Your task to perform on an android device: Open accessibility settings Image 0: 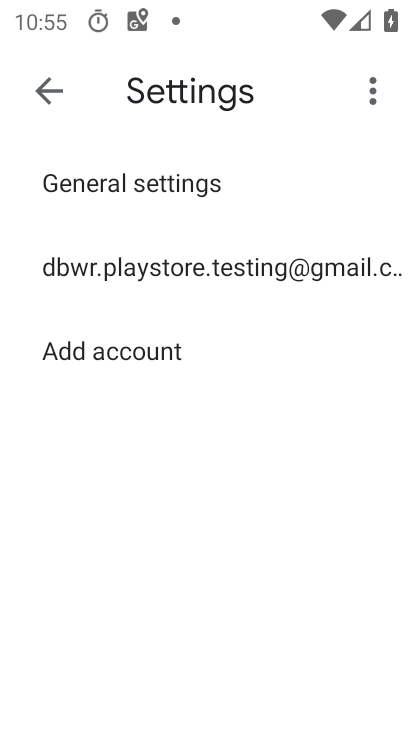
Step 0: press home button
Your task to perform on an android device: Open accessibility settings Image 1: 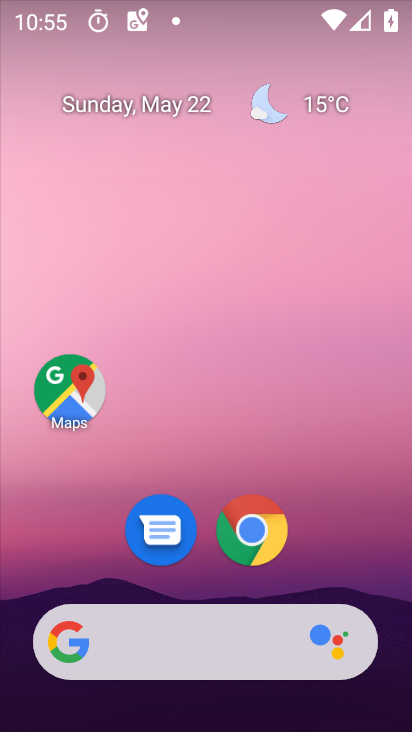
Step 1: drag from (393, 677) to (385, 194)
Your task to perform on an android device: Open accessibility settings Image 2: 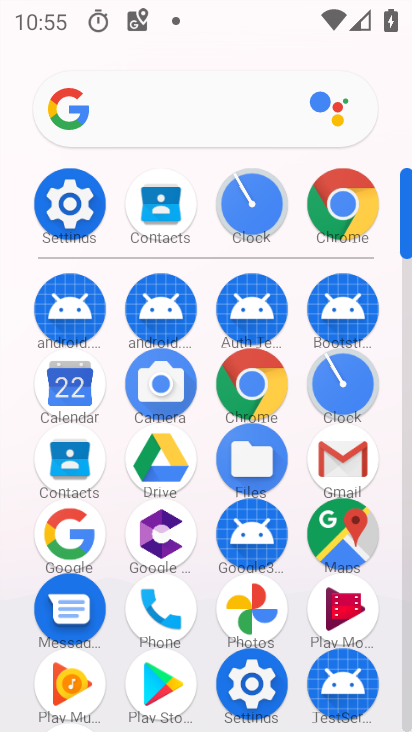
Step 2: click (79, 211)
Your task to perform on an android device: Open accessibility settings Image 3: 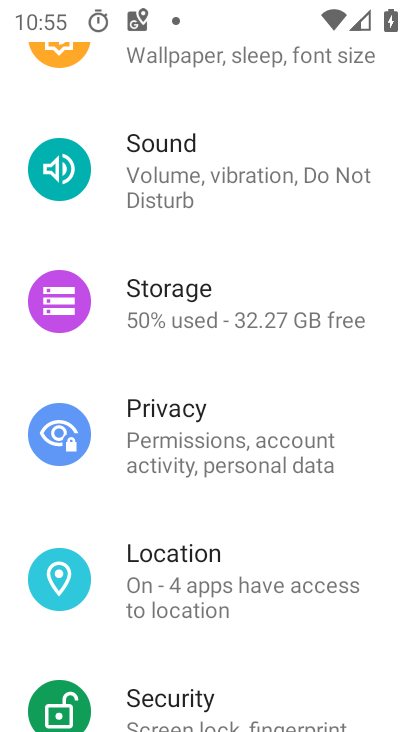
Step 3: drag from (322, 693) to (253, 308)
Your task to perform on an android device: Open accessibility settings Image 4: 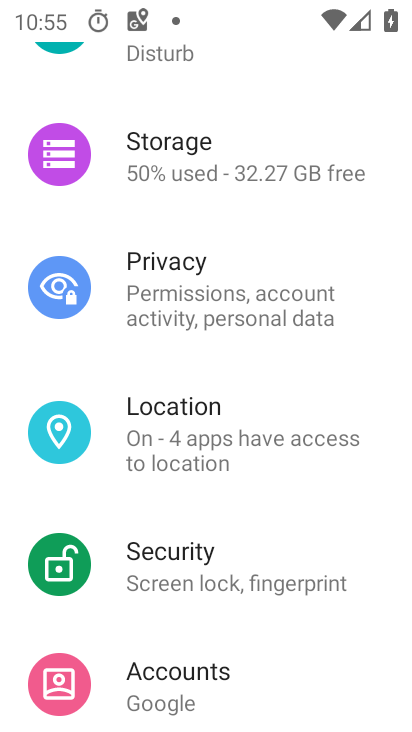
Step 4: drag from (288, 679) to (299, 319)
Your task to perform on an android device: Open accessibility settings Image 5: 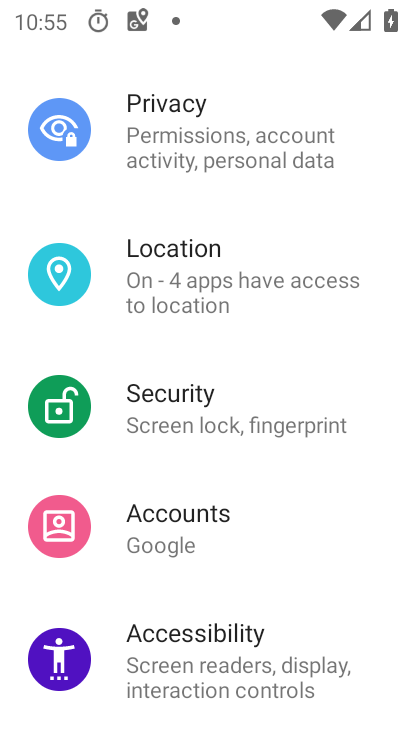
Step 5: click (195, 641)
Your task to perform on an android device: Open accessibility settings Image 6: 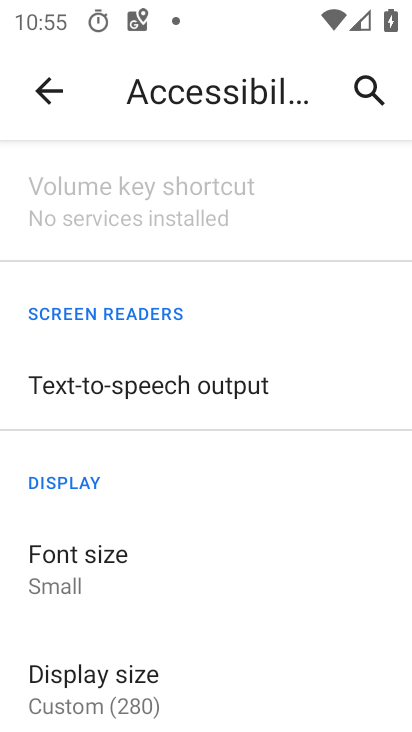
Step 6: task complete